Your task to perform on an android device: Open the Play Movies app and select the watchlist tab. Image 0: 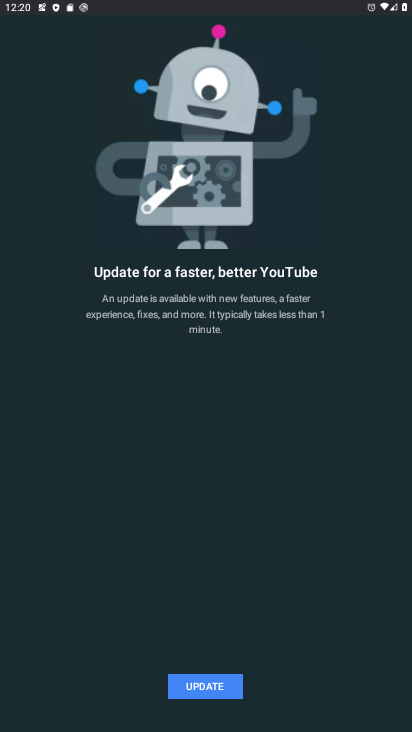
Step 0: press home button
Your task to perform on an android device: Open the Play Movies app and select the watchlist tab. Image 1: 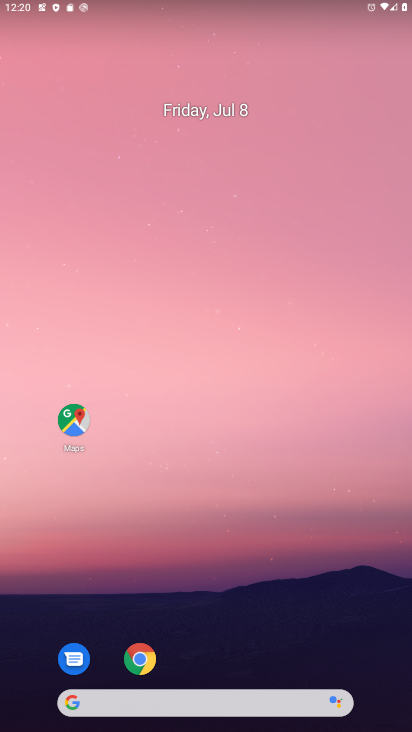
Step 1: drag from (210, 568) to (190, 220)
Your task to perform on an android device: Open the Play Movies app and select the watchlist tab. Image 2: 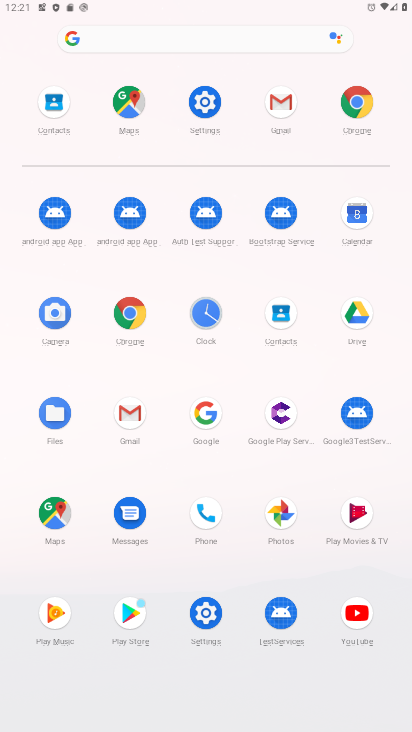
Step 2: click (353, 517)
Your task to perform on an android device: Open the Play Movies app and select the watchlist tab. Image 3: 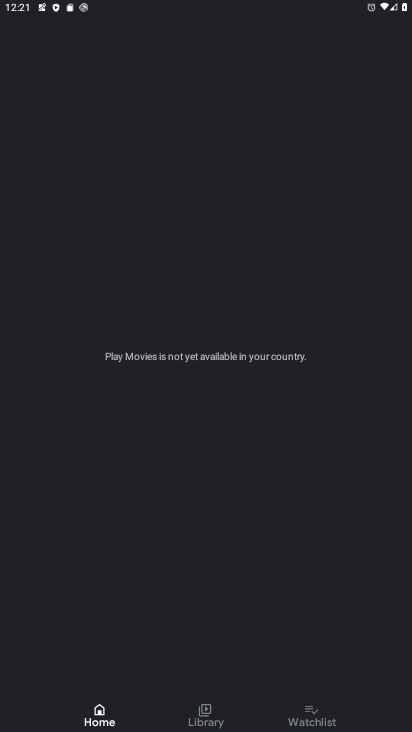
Step 3: click (310, 713)
Your task to perform on an android device: Open the Play Movies app and select the watchlist tab. Image 4: 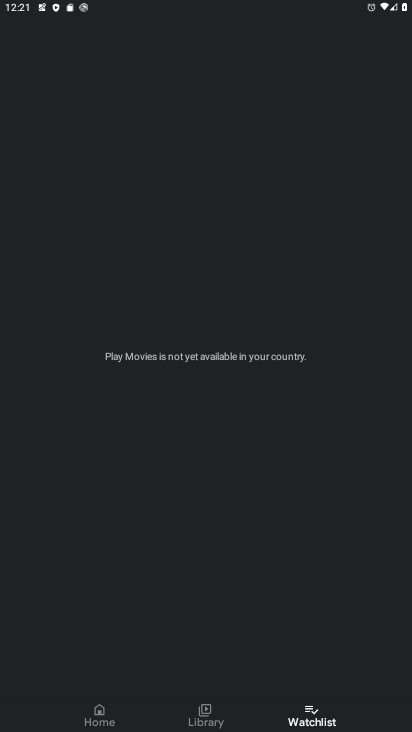
Step 4: task complete